Your task to perform on an android device: When is my next meeting? Image 0: 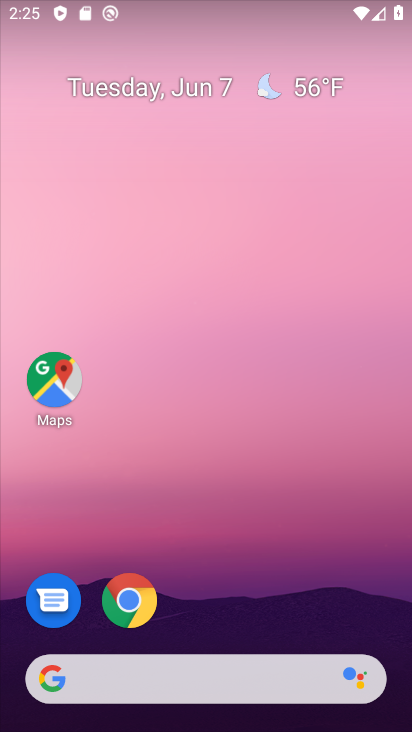
Step 0: drag from (399, 654) to (402, 82)
Your task to perform on an android device: When is my next meeting? Image 1: 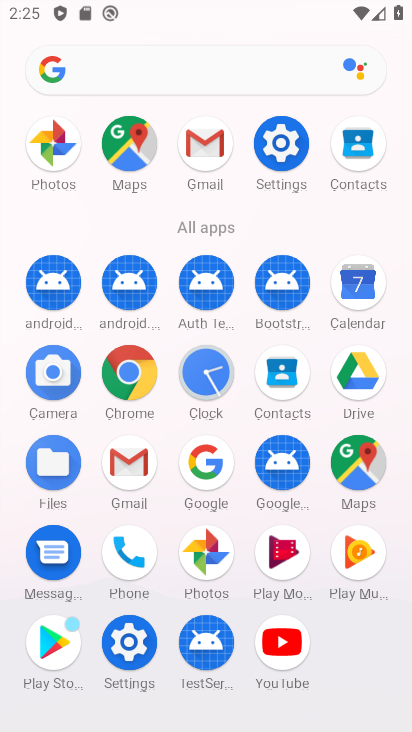
Step 1: click (288, 141)
Your task to perform on an android device: When is my next meeting? Image 2: 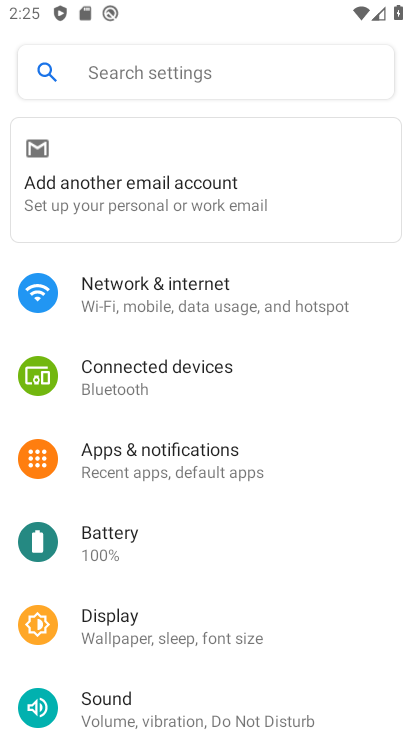
Step 2: press back button
Your task to perform on an android device: When is my next meeting? Image 3: 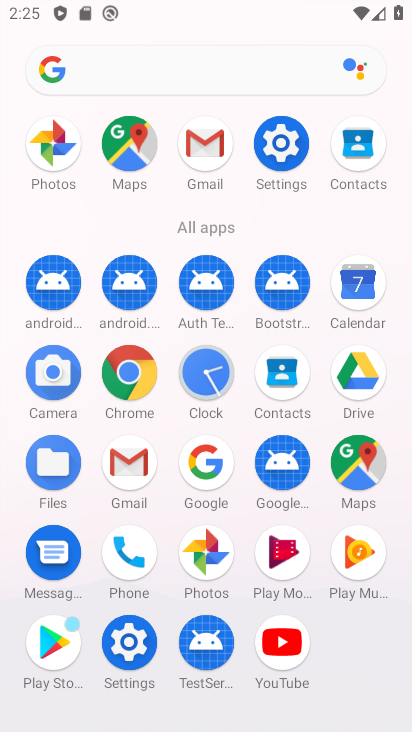
Step 3: click (367, 289)
Your task to perform on an android device: When is my next meeting? Image 4: 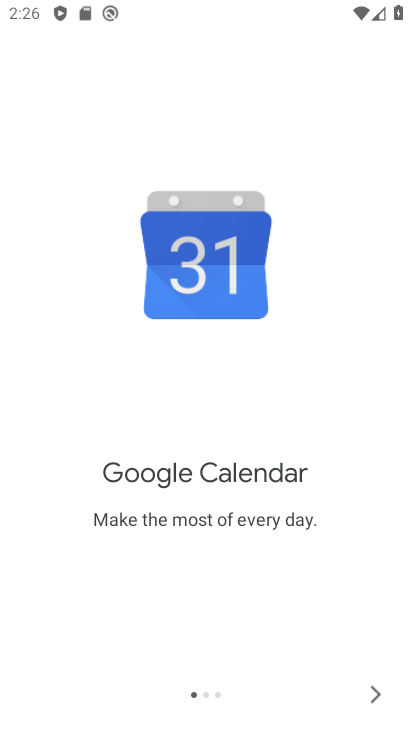
Step 4: click (376, 699)
Your task to perform on an android device: When is my next meeting? Image 5: 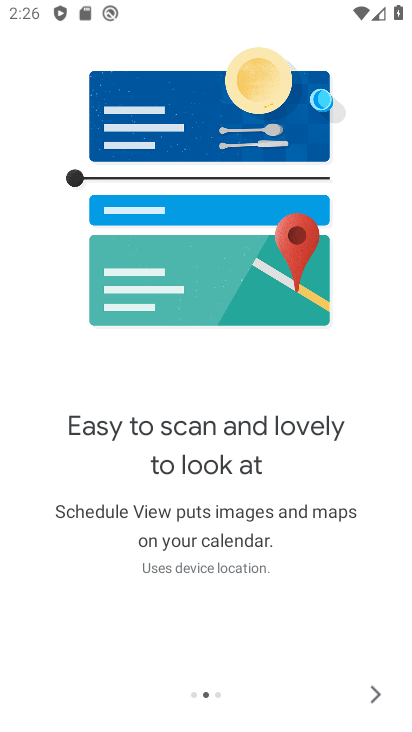
Step 5: click (376, 699)
Your task to perform on an android device: When is my next meeting? Image 6: 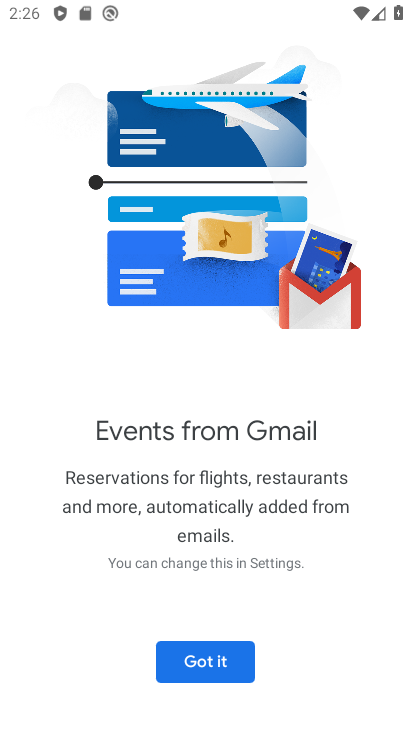
Step 6: click (237, 668)
Your task to perform on an android device: When is my next meeting? Image 7: 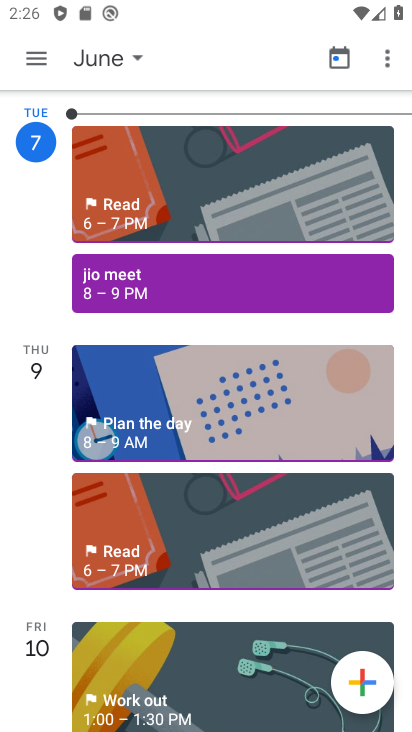
Step 7: click (387, 62)
Your task to perform on an android device: When is my next meeting? Image 8: 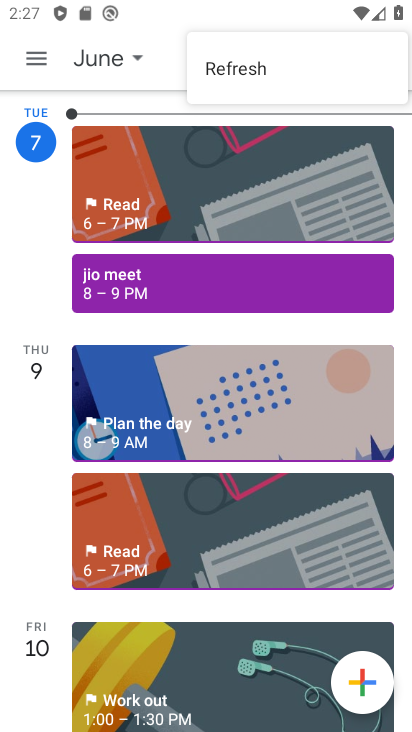
Step 8: task complete